Your task to perform on an android device: View the shopping cart on walmart. Image 0: 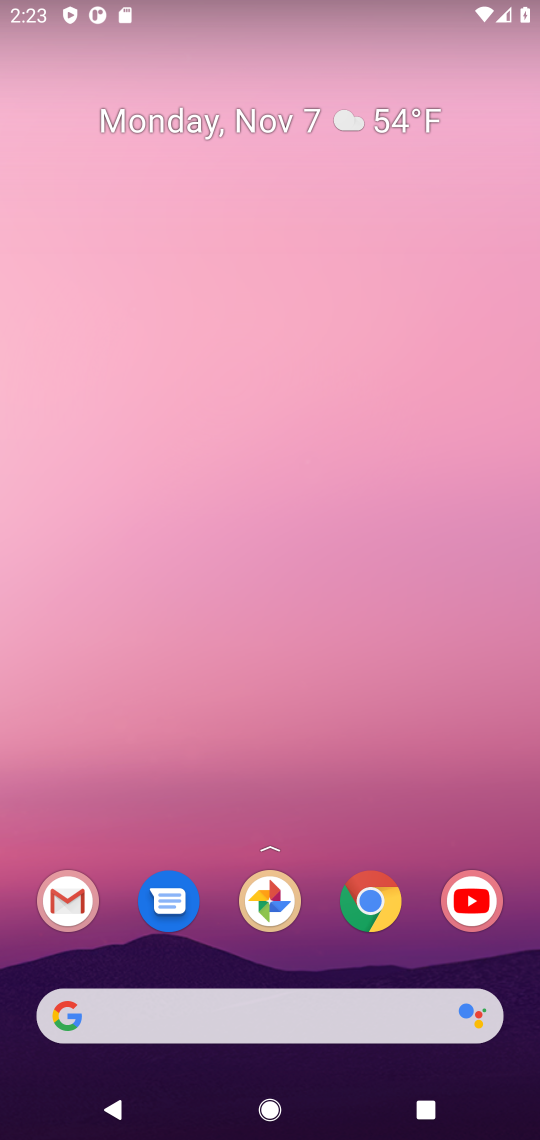
Step 0: click (362, 904)
Your task to perform on an android device: View the shopping cart on walmart. Image 1: 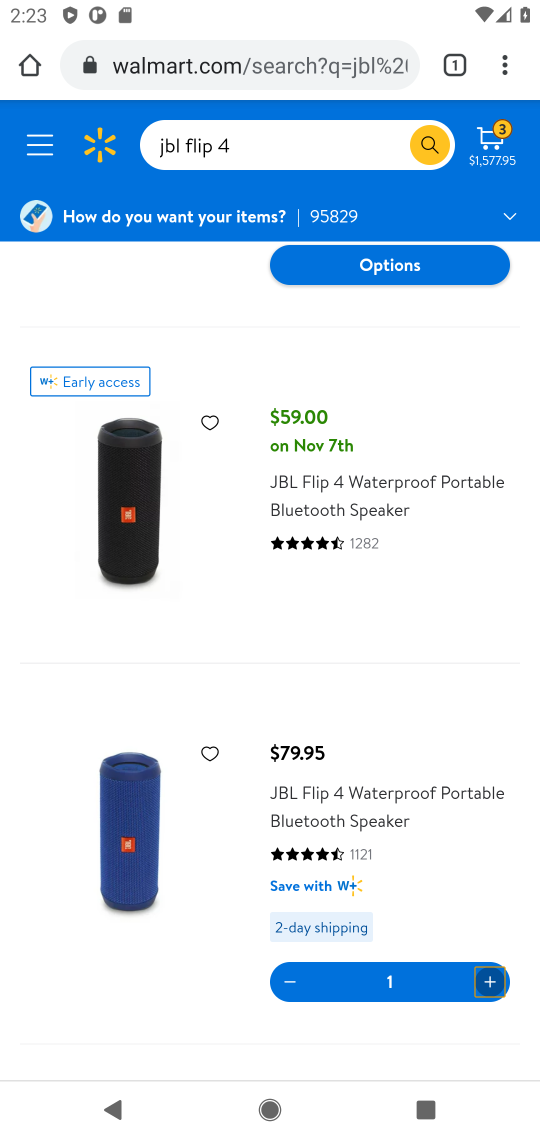
Step 1: click (490, 142)
Your task to perform on an android device: View the shopping cart on walmart. Image 2: 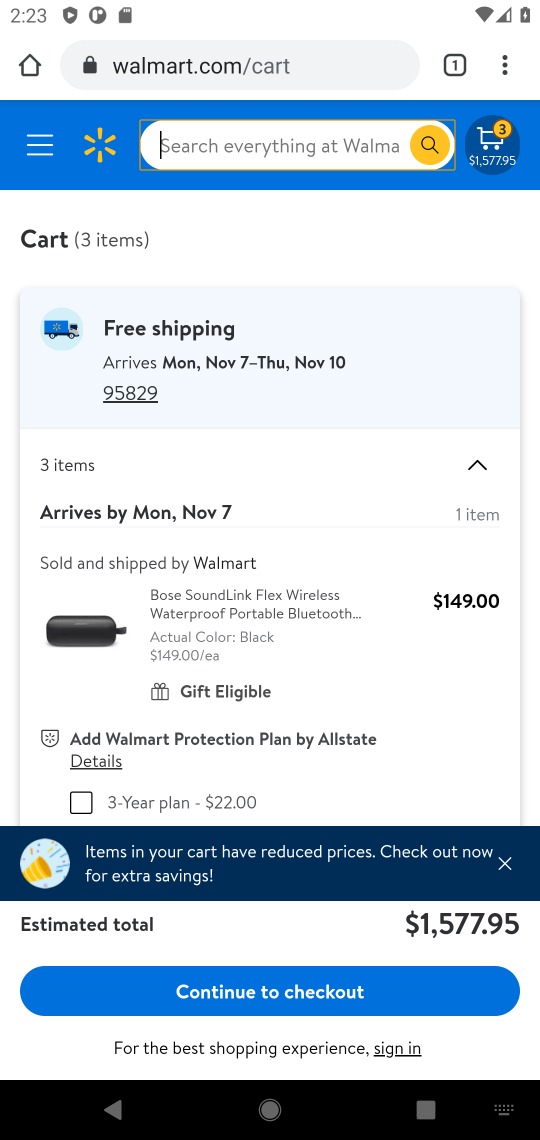
Step 2: click (490, 142)
Your task to perform on an android device: View the shopping cart on walmart. Image 3: 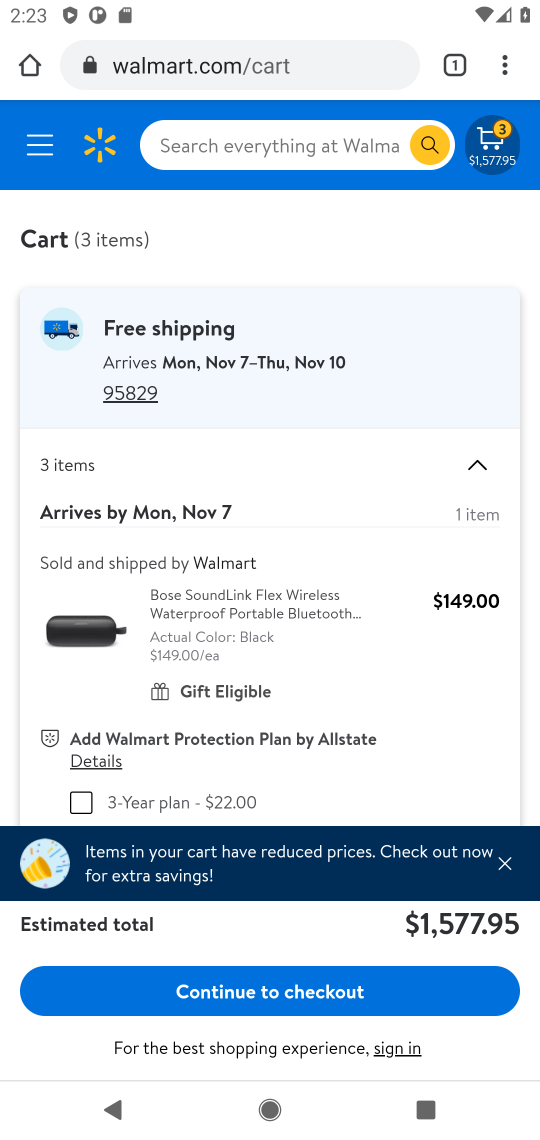
Step 3: task complete